Your task to perform on an android device: Go to Yahoo.com Image 0: 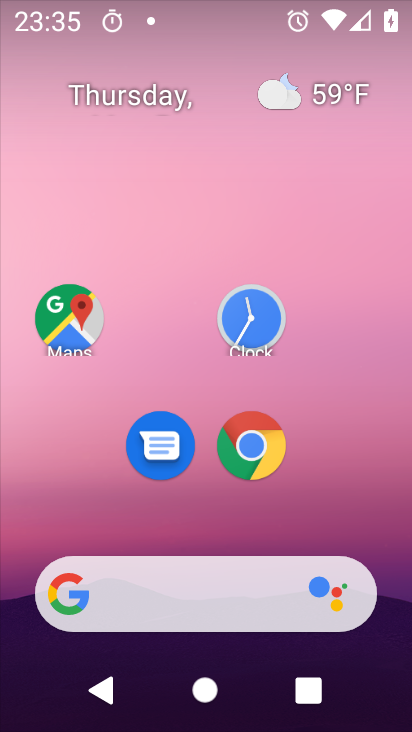
Step 0: click (262, 443)
Your task to perform on an android device: Go to Yahoo.com Image 1: 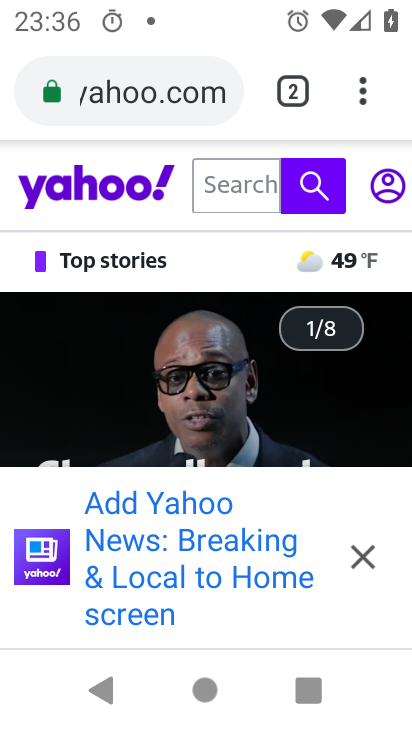
Step 1: task complete